Your task to perform on an android device: check out phone information Image 0: 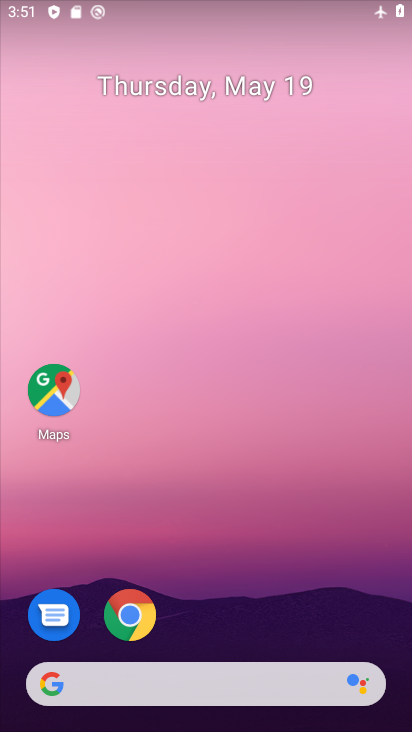
Step 0: drag from (259, 639) to (198, 33)
Your task to perform on an android device: check out phone information Image 1: 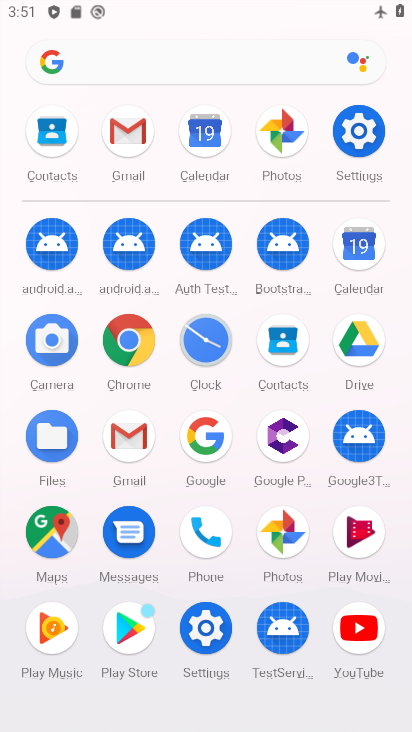
Step 1: click (354, 131)
Your task to perform on an android device: check out phone information Image 2: 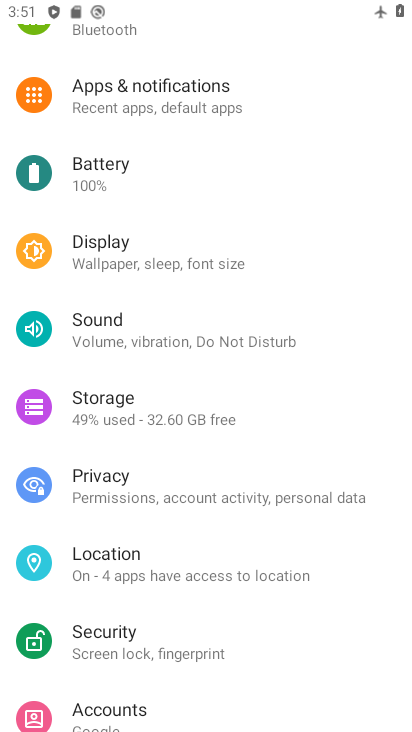
Step 2: drag from (376, 623) to (350, 21)
Your task to perform on an android device: check out phone information Image 3: 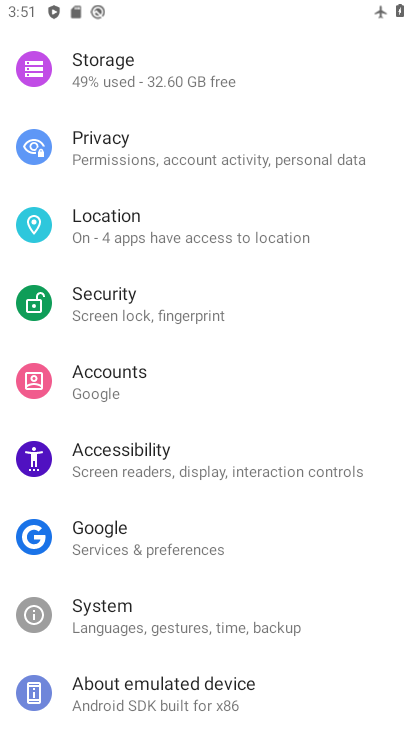
Step 3: click (165, 689)
Your task to perform on an android device: check out phone information Image 4: 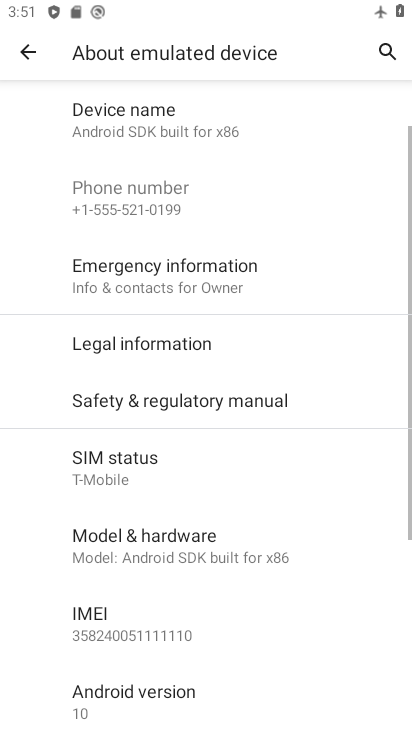
Step 4: task complete